Your task to perform on an android device: change text size in settings app Image 0: 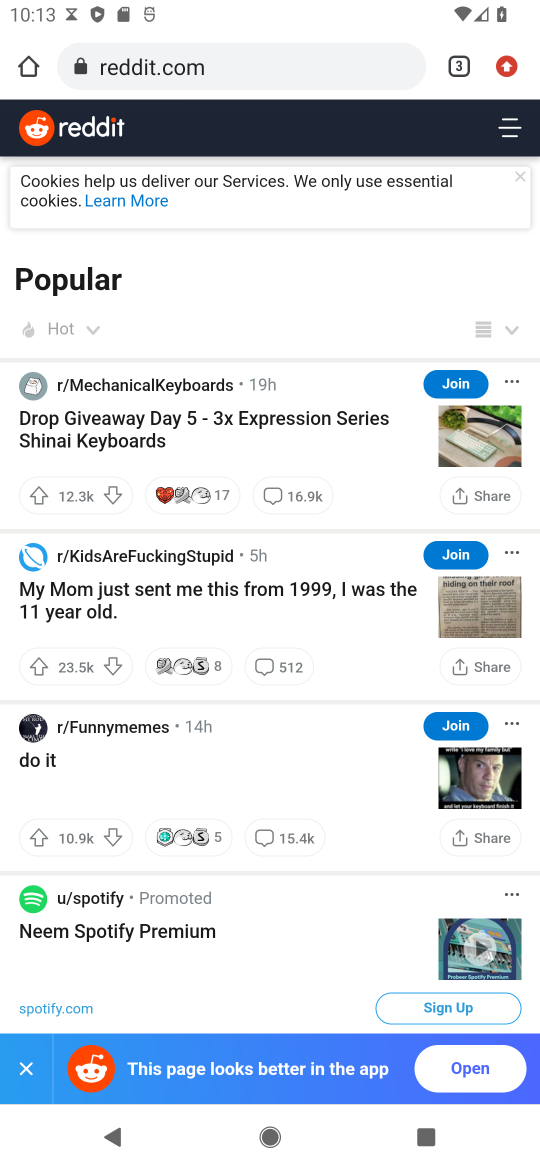
Step 0: press home button
Your task to perform on an android device: change text size in settings app Image 1: 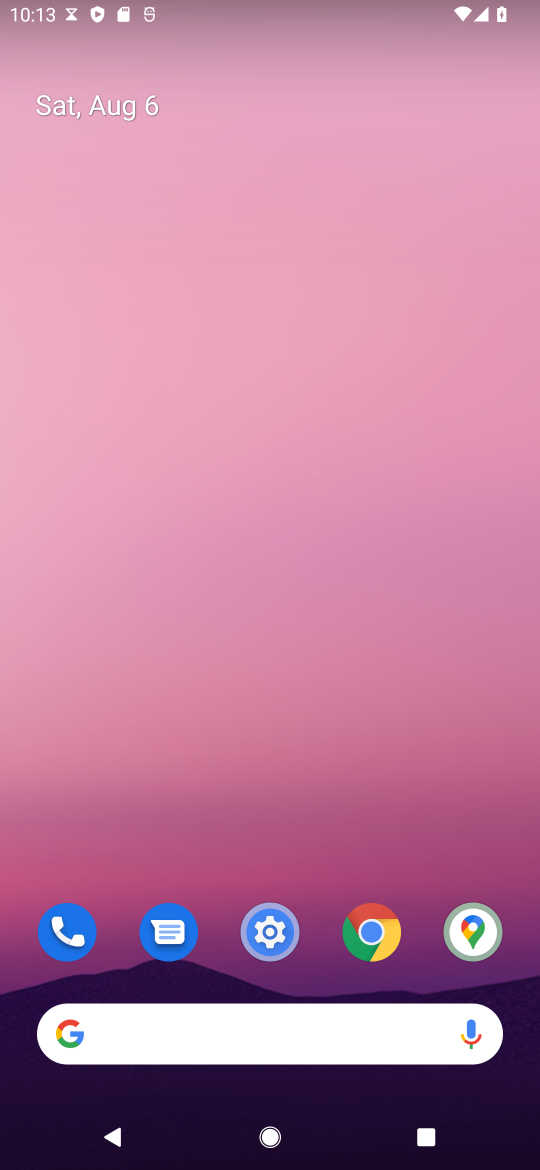
Step 1: click (270, 927)
Your task to perform on an android device: change text size in settings app Image 2: 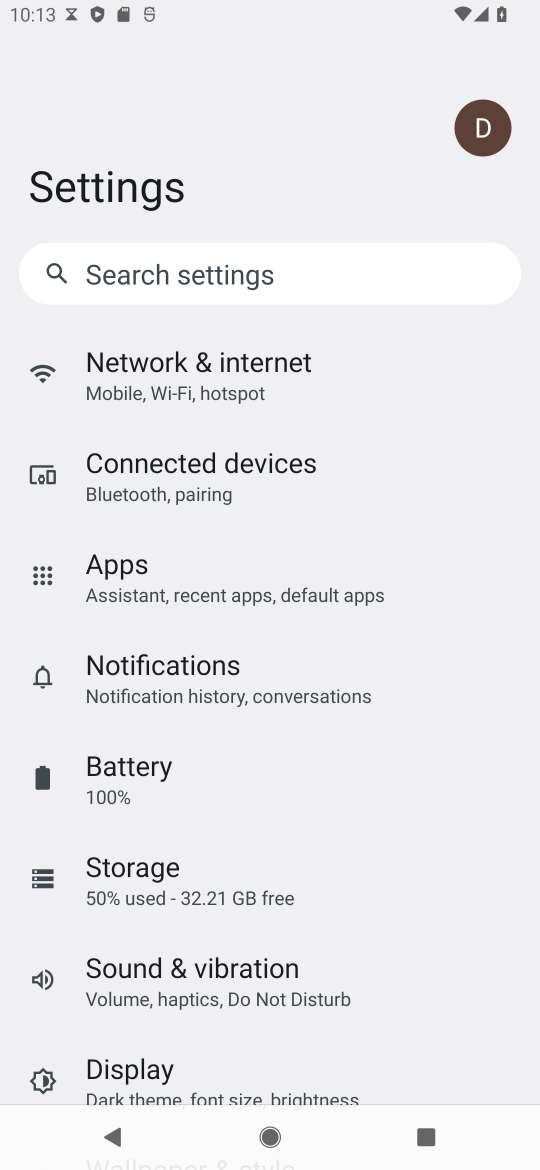
Step 2: drag from (178, 825) to (274, 631)
Your task to perform on an android device: change text size in settings app Image 3: 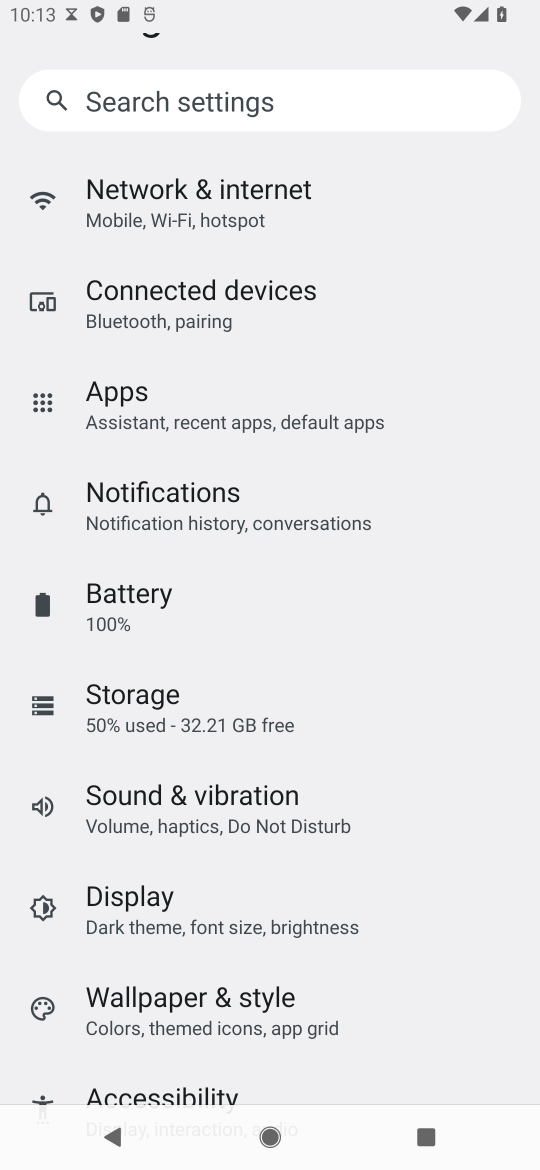
Step 3: drag from (204, 833) to (326, 621)
Your task to perform on an android device: change text size in settings app Image 4: 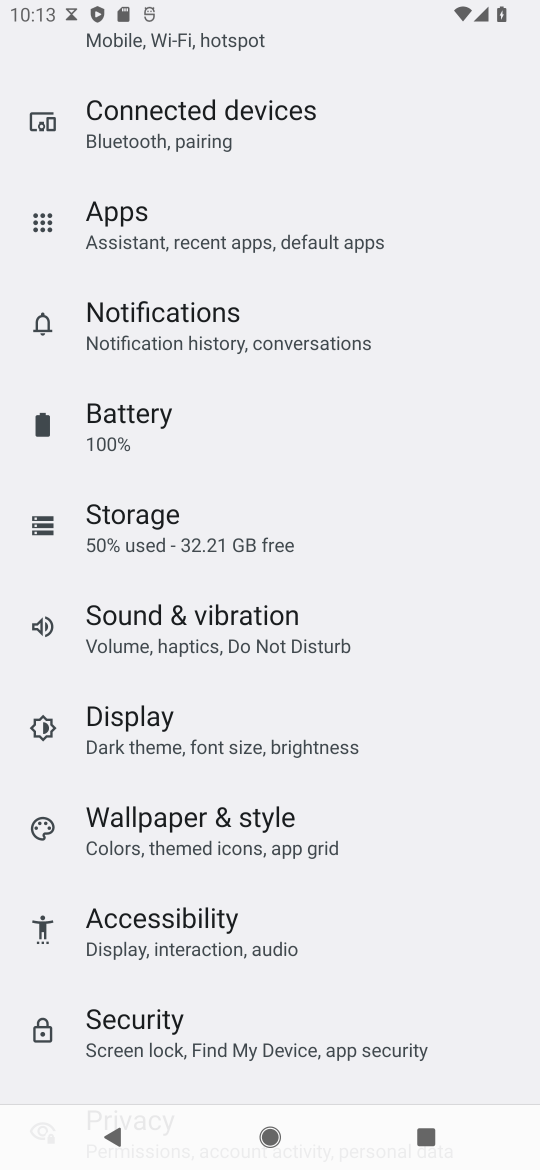
Step 4: click (188, 930)
Your task to perform on an android device: change text size in settings app Image 5: 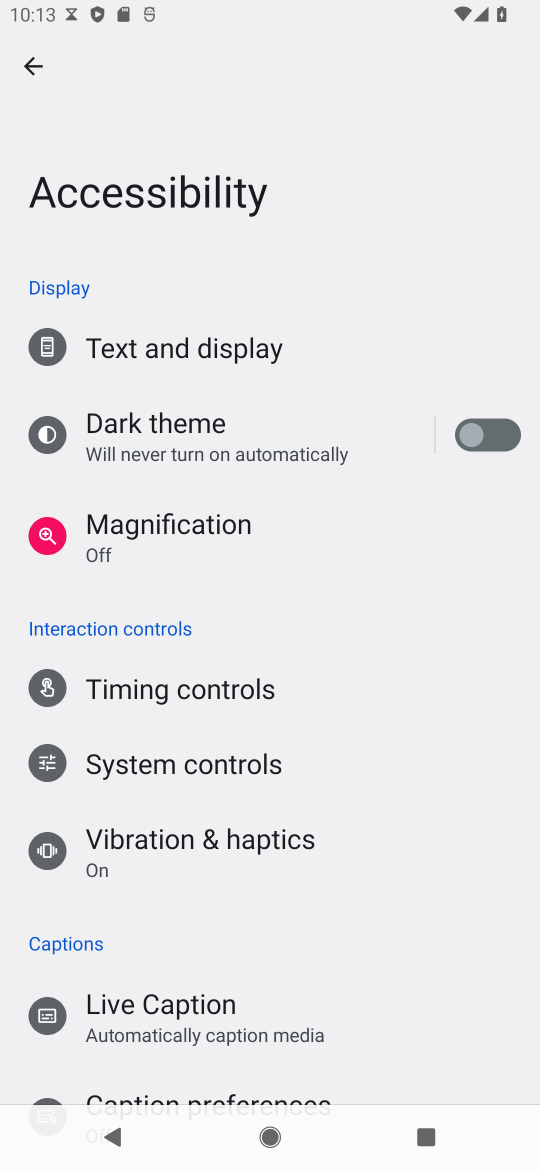
Step 5: click (198, 359)
Your task to perform on an android device: change text size in settings app Image 6: 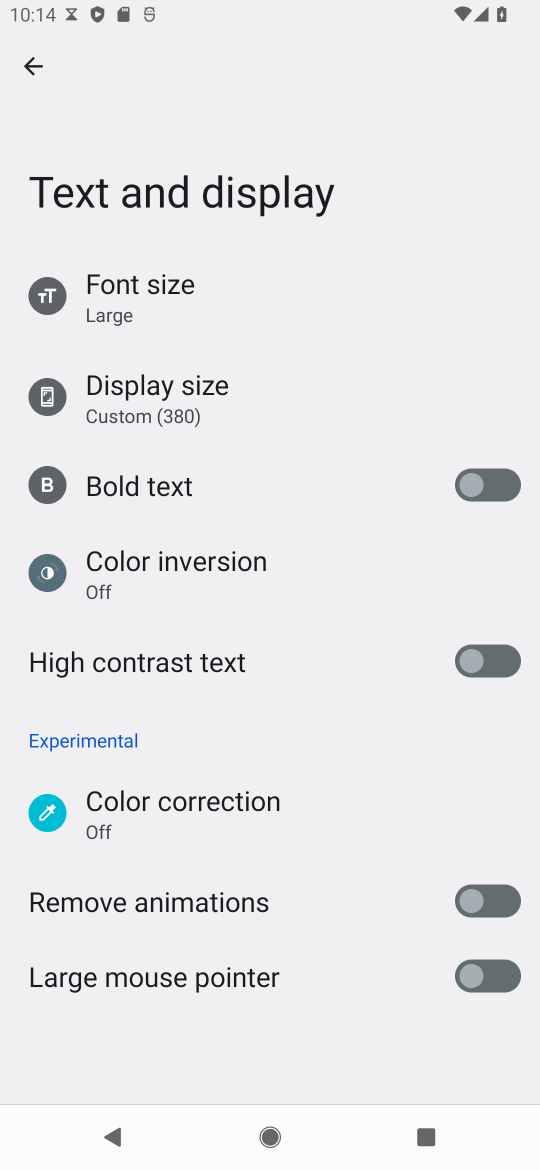
Step 6: click (173, 311)
Your task to perform on an android device: change text size in settings app Image 7: 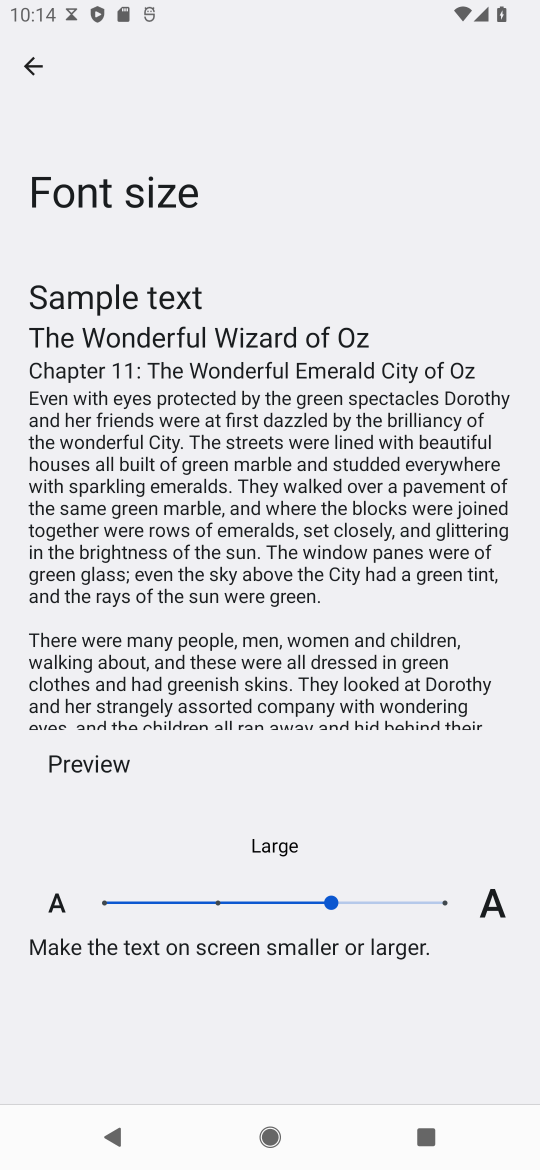
Step 7: click (440, 899)
Your task to perform on an android device: change text size in settings app Image 8: 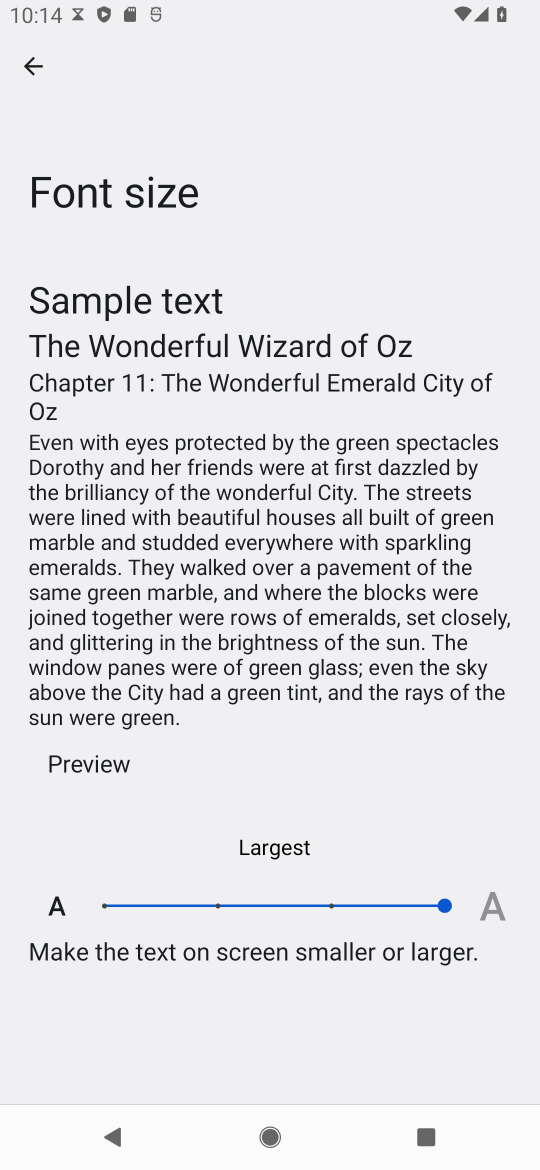
Step 8: task complete